Your task to perform on an android device: turn notification dots on Image 0: 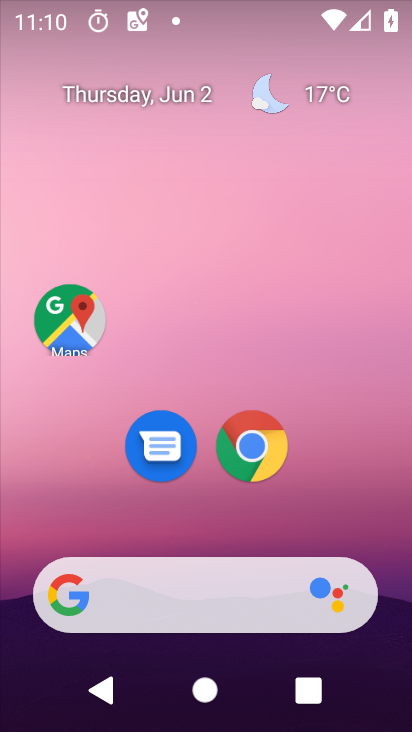
Step 0: press home button
Your task to perform on an android device: turn notification dots on Image 1: 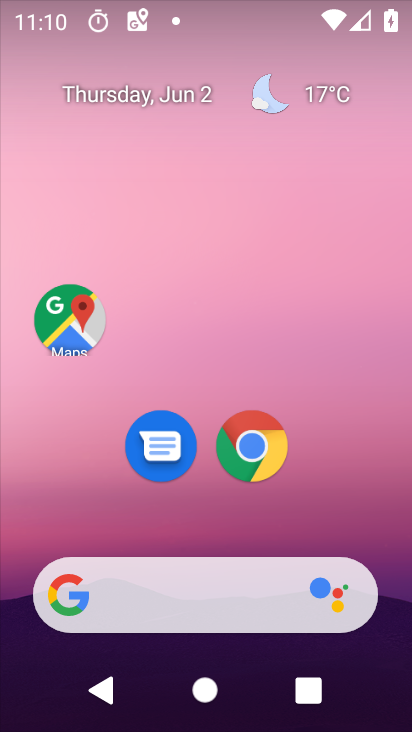
Step 1: drag from (353, 504) to (379, 159)
Your task to perform on an android device: turn notification dots on Image 2: 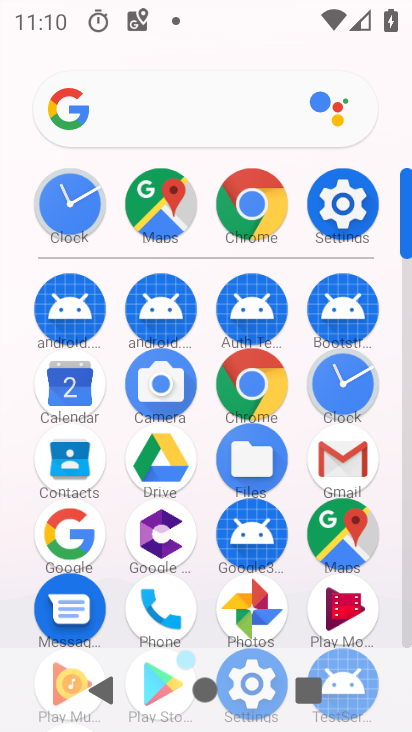
Step 2: click (352, 216)
Your task to perform on an android device: turn notification dots on Image 3: 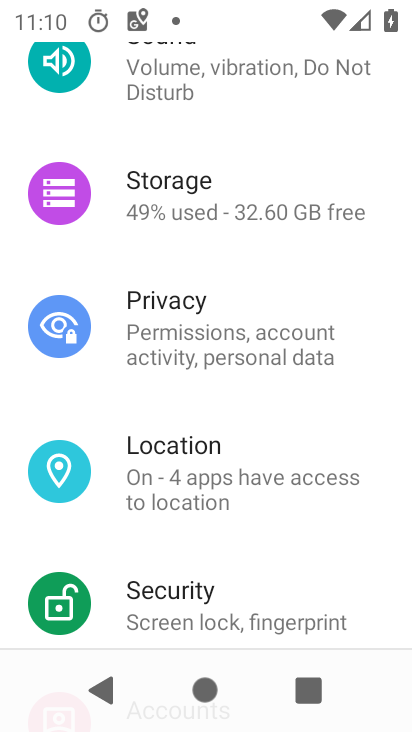
Step 3: drag from (393, 147) to (384, 253)
Your task to perform on an android device: turn notification dots on Image 4: 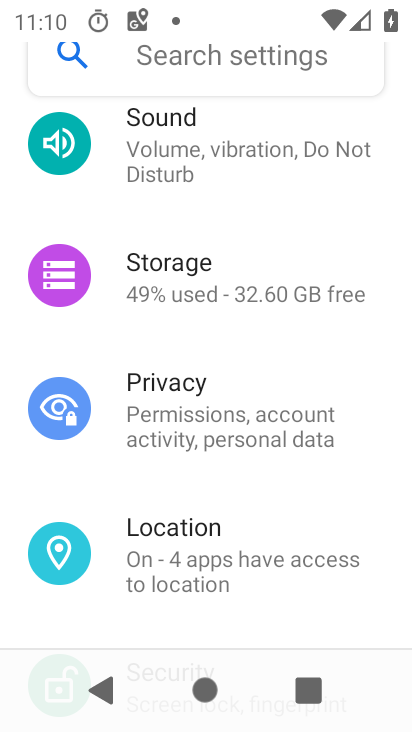
Step 4: drag from (382, 210) to (382, 322)
Your task to perform on an android device: turn notification dots on Image 5: 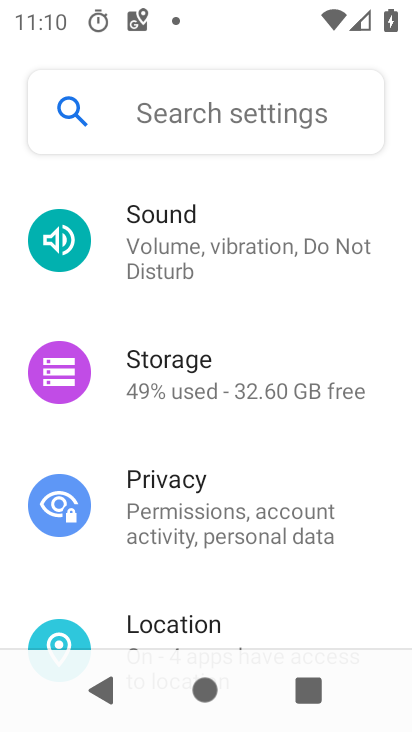
Step 5: drag from (375, 205) to (373, 342)
Your task to perform on an android device: turn notification dots on Image 6: 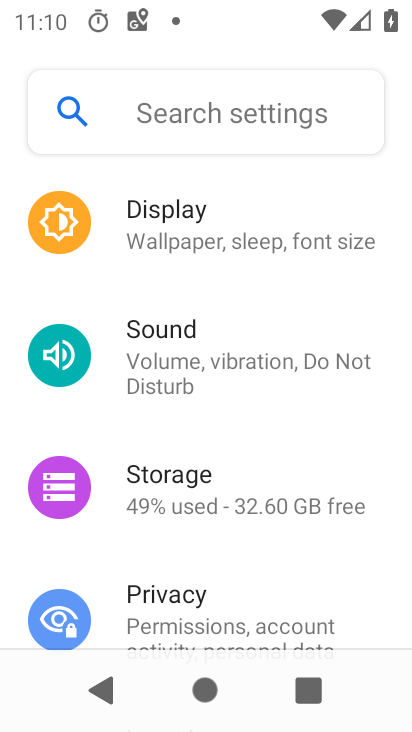
Step 6: drag from (380, 198) to (384, 330)
Your task to perform on an android device: turn notification dots on Image 7: 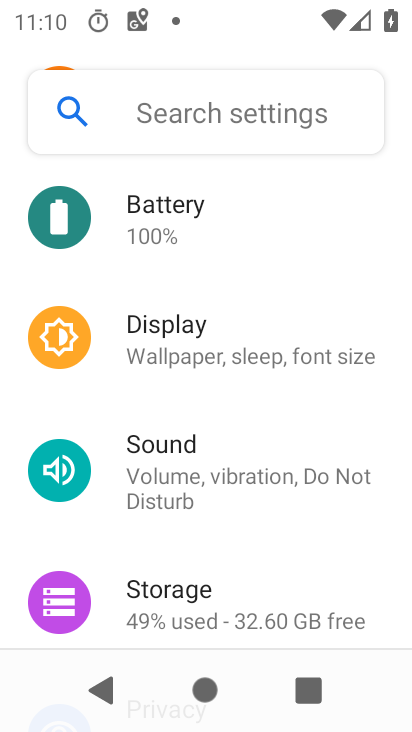
Step 7: drag from (372, 242) to (373, 366)
Your task to perform on an android device: turn notification dots on Image 8: 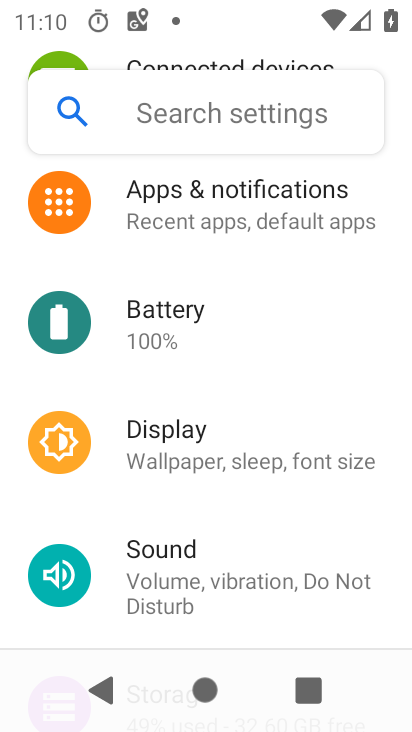
Step 8: drag from (378, 187) to (379, 367)
Your task to perform on an android device: turn notification dots on Image 9: 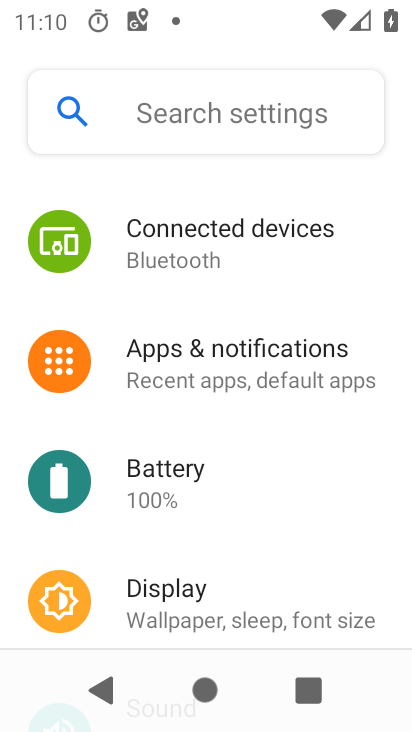
Step 9: drag from (363, 228) to (367, 399)
Your task to perform on an android device: turn notification dots on Image 10: 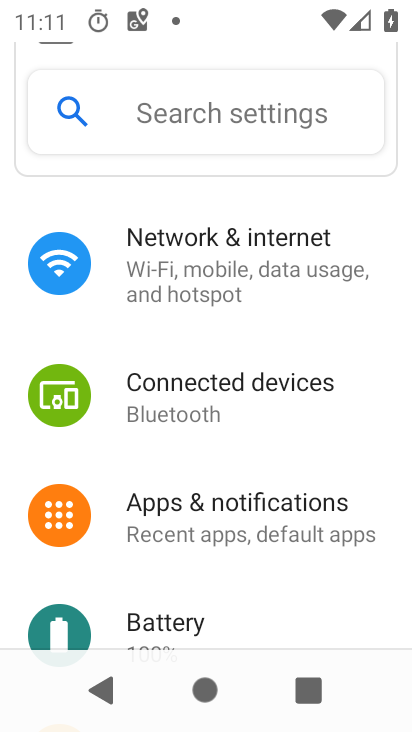
Step 10: click (258, 513)
Your task to perform on an android device: turn notification dots on Image 11: 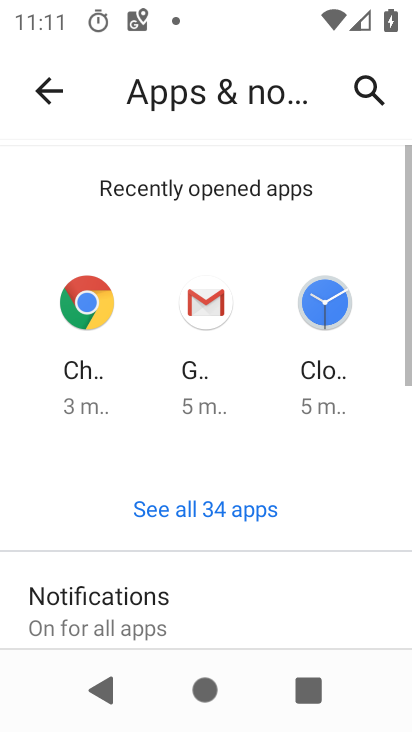
Step 11: drag from (259, 572) to (274, 403)
Your task to perform on an android device: turn notification dots on Image 12: 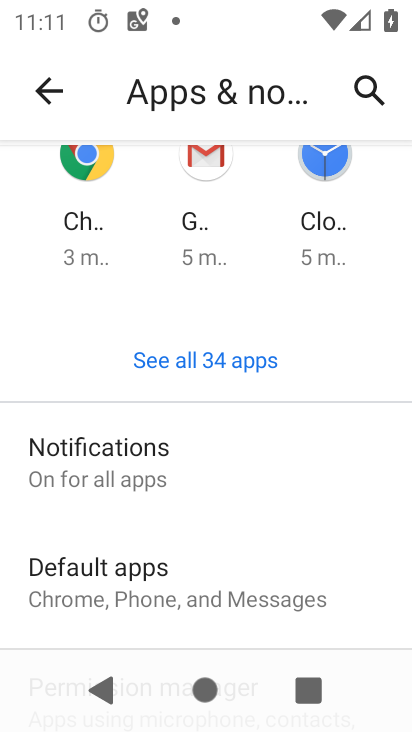
Step 12: click (246, 476)
Your task to perform on an android device: turn notification dots on Image 13: 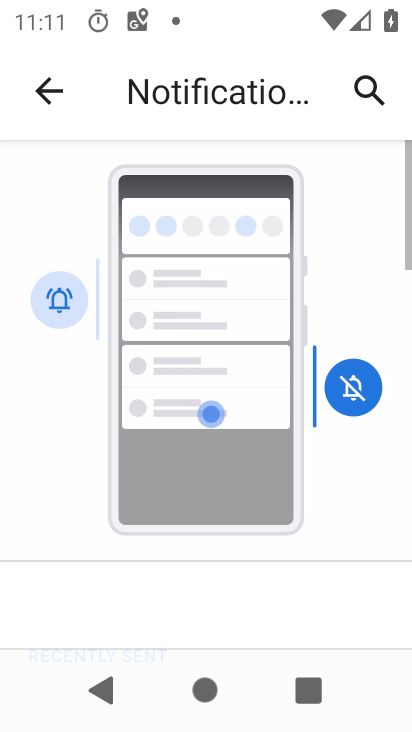
Step 13: drag from (266, 482) to (278, 320)
Your task to perform on an android device: turn notification dots on Image 14: 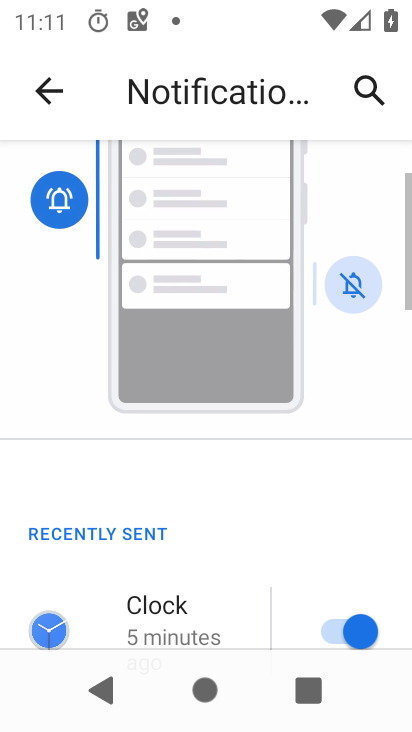
Step 14: drag from (270, 524) to (276, 352)
Your task to perform on an android device: turn notification dots on Image 15: 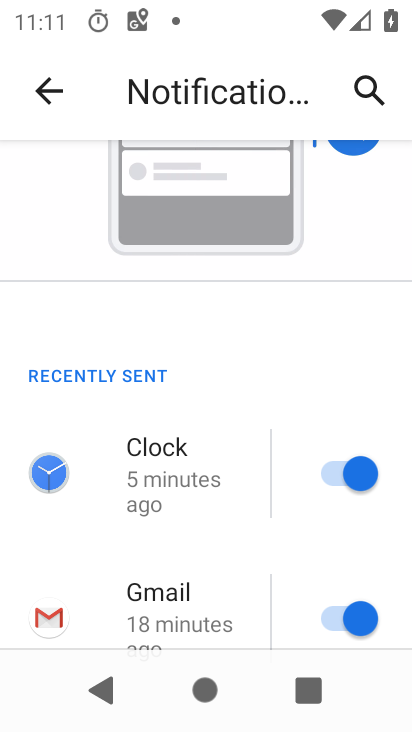
Step 15: drag from (241, 552) to (248, 389)
Your task to perform on an android device: turn notification dots on Image 16: 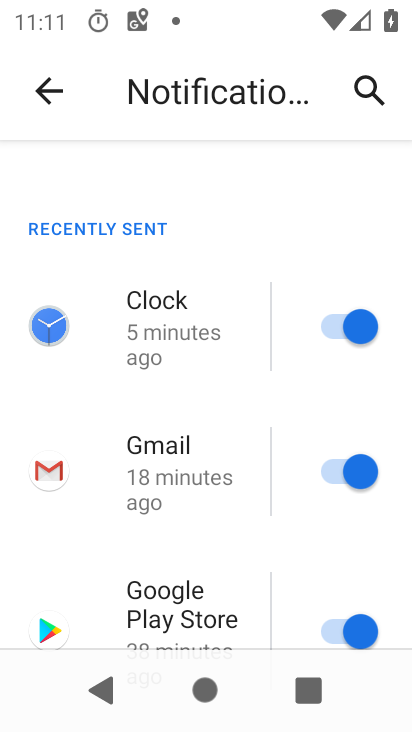
Step 16: drag from (241, 564) to (248, 378)
Your task to perform on an android device: turn notification dots on Image 17: 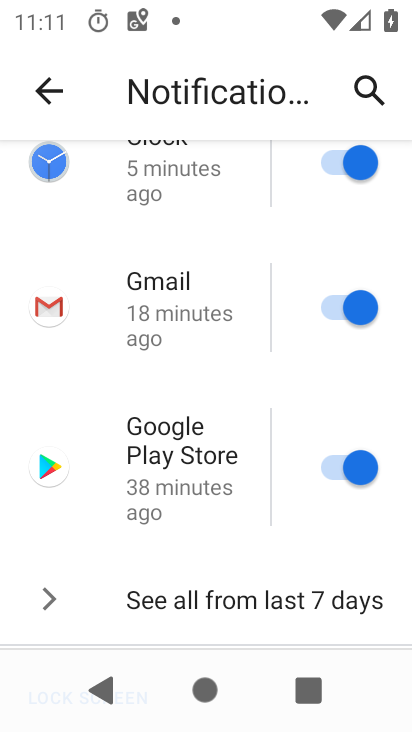
Step 17: drag from (229, 533) to (243, 371)
Your task to perform on an android device: turn notification dots on Image 18: 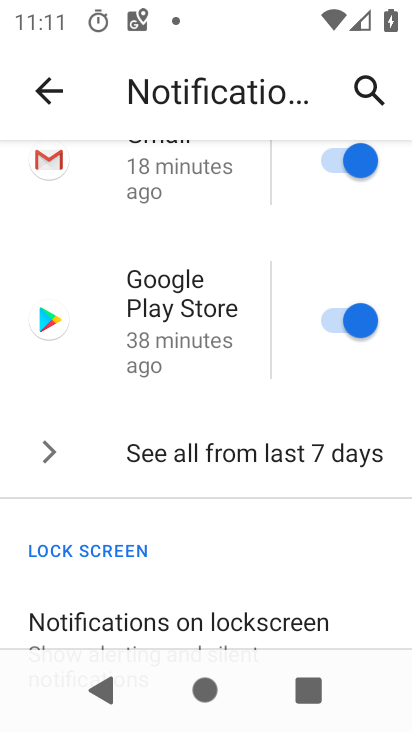
Step 18: drag from (247, 543) to (252, 265)
Your task to perform on an android device: turn notification dots on Image 19: 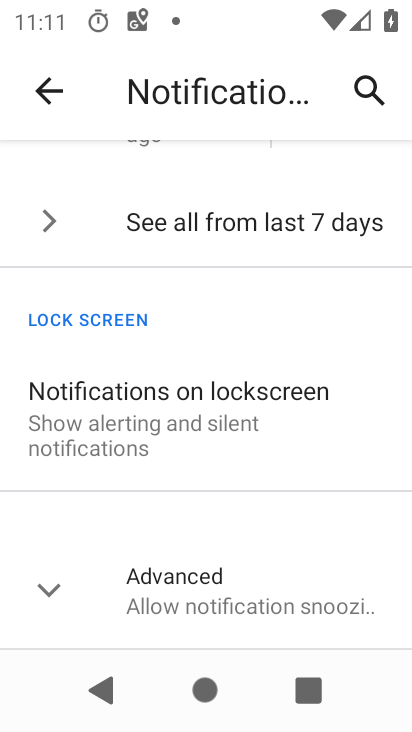
Step 19: click (223, 585)
Your task to perform on an android device: turn notification dots on Image 20: 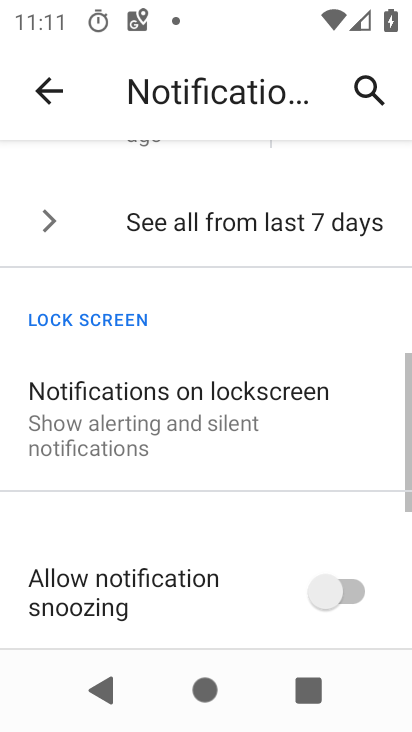
Step 20: task complete